Your task to perform on an android device: What's on the menu at Panera? Image 0: 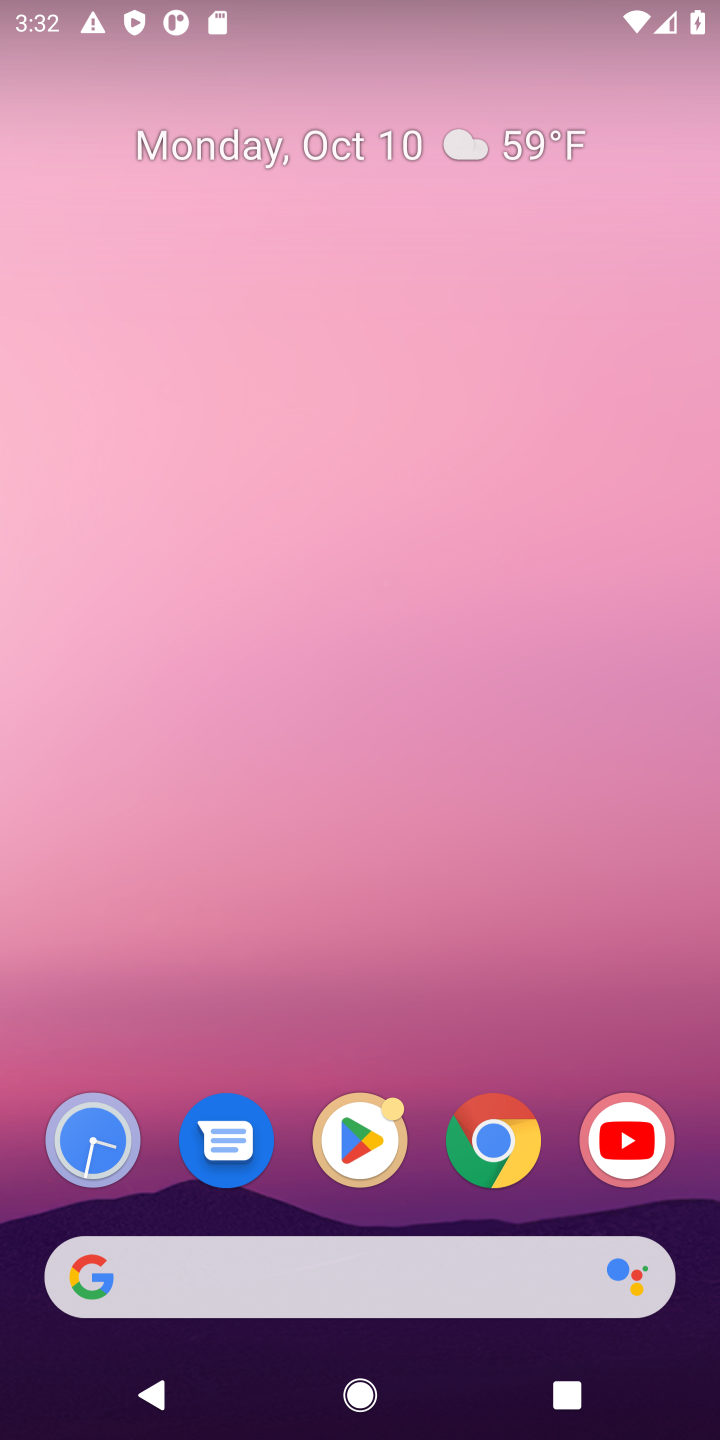
Step 0: drag from (391, 358) to (396, 214)
Your task to perform on an android device: What's on the menu at Panera? Image 1: 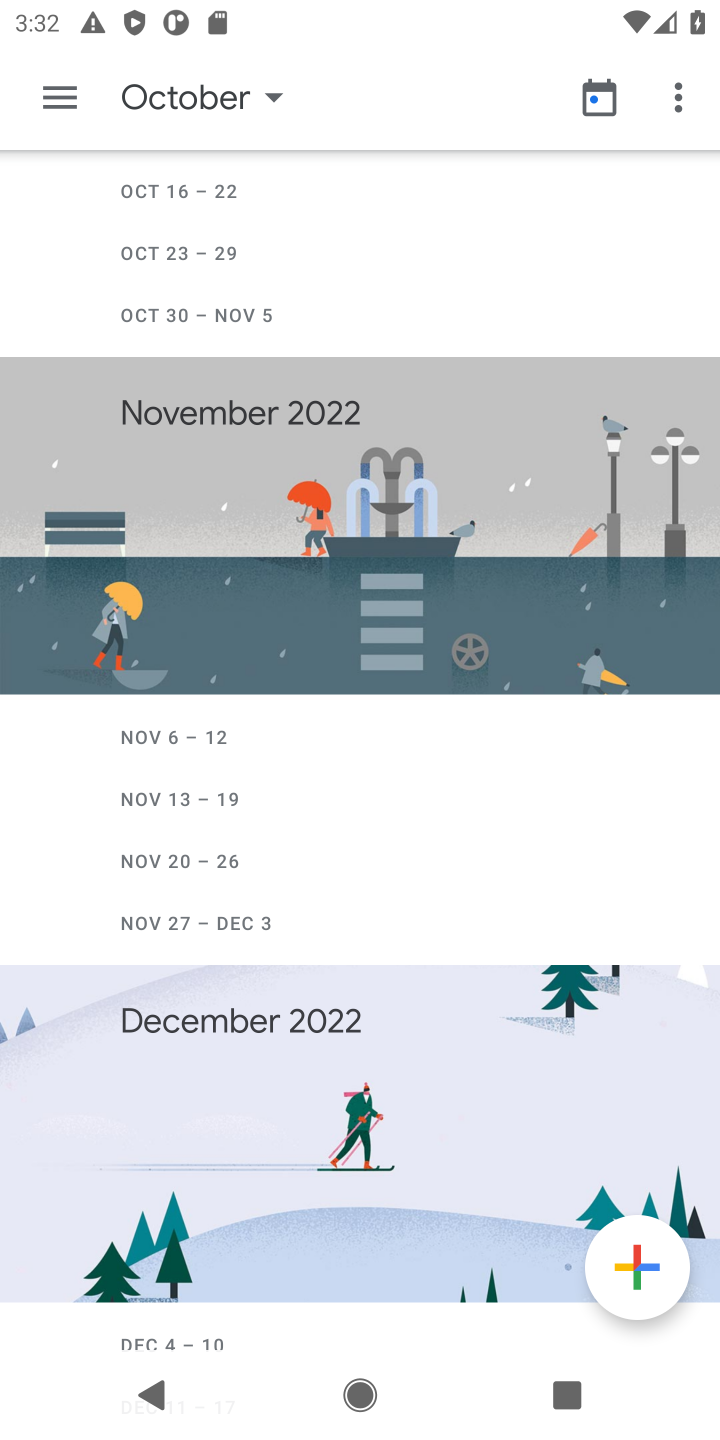
Step 1: press home button
Your task to perform on an android device: What's on the menu at Panera? Image 2: 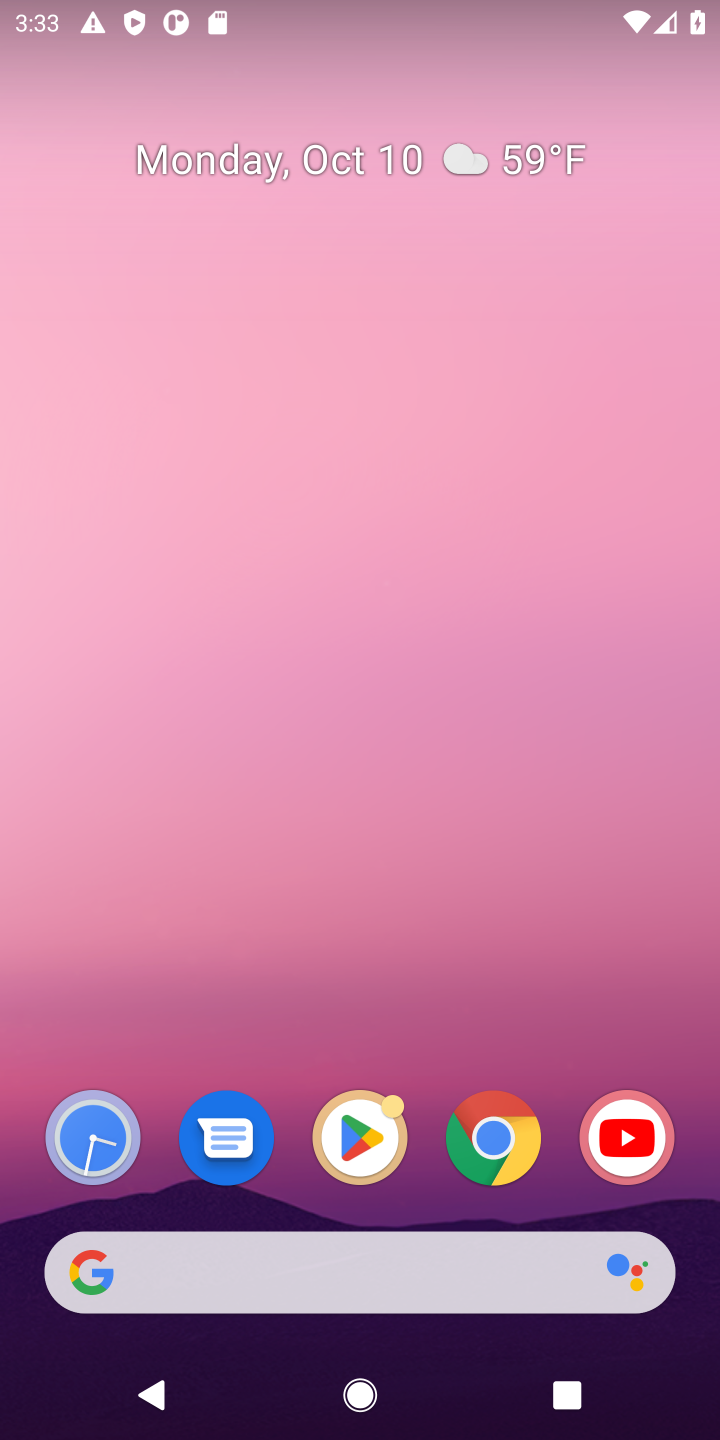
Step 2: drag from (412, 1297) to (280, 367)
Your task to perform on an android device: What's on the menu at Panera? Image 3: 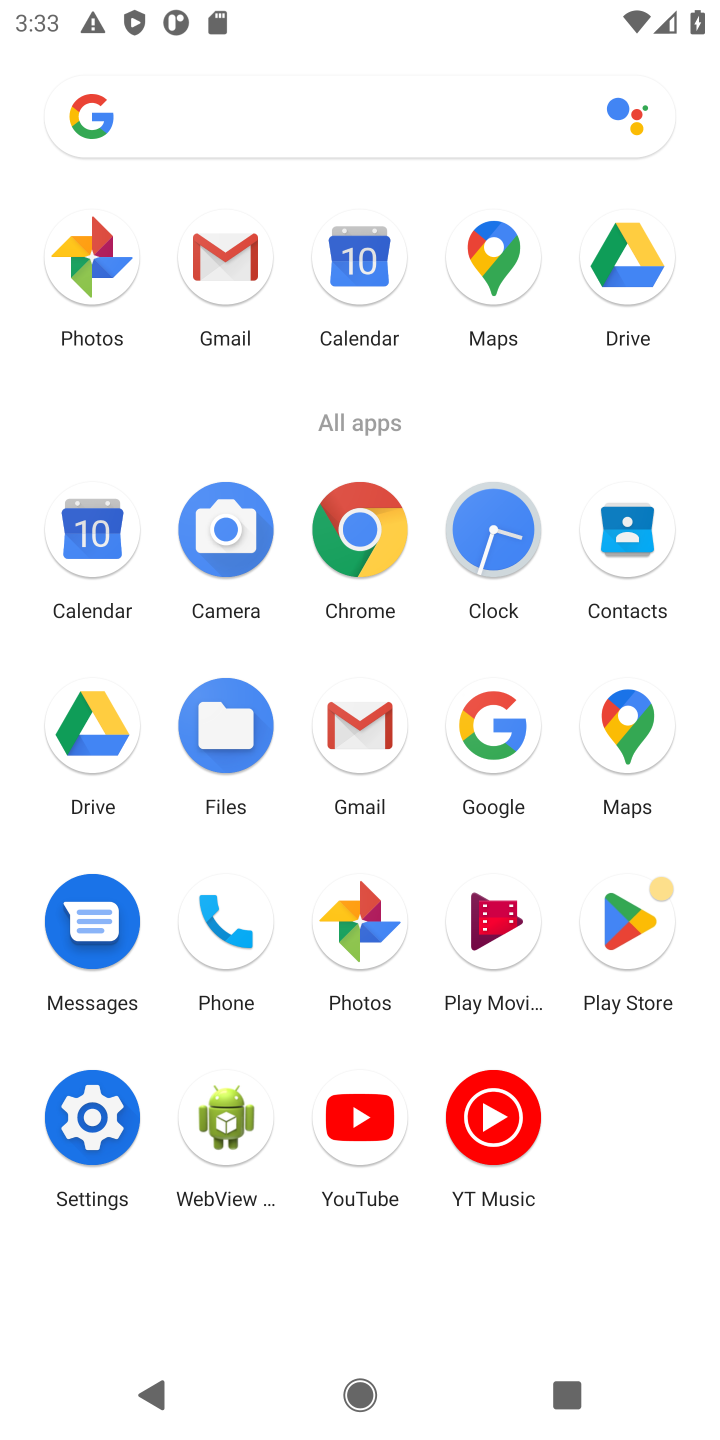
Step 3: click (360, 525)
Your task to perform on an android device: What's on the menu at Panera? Image 4: 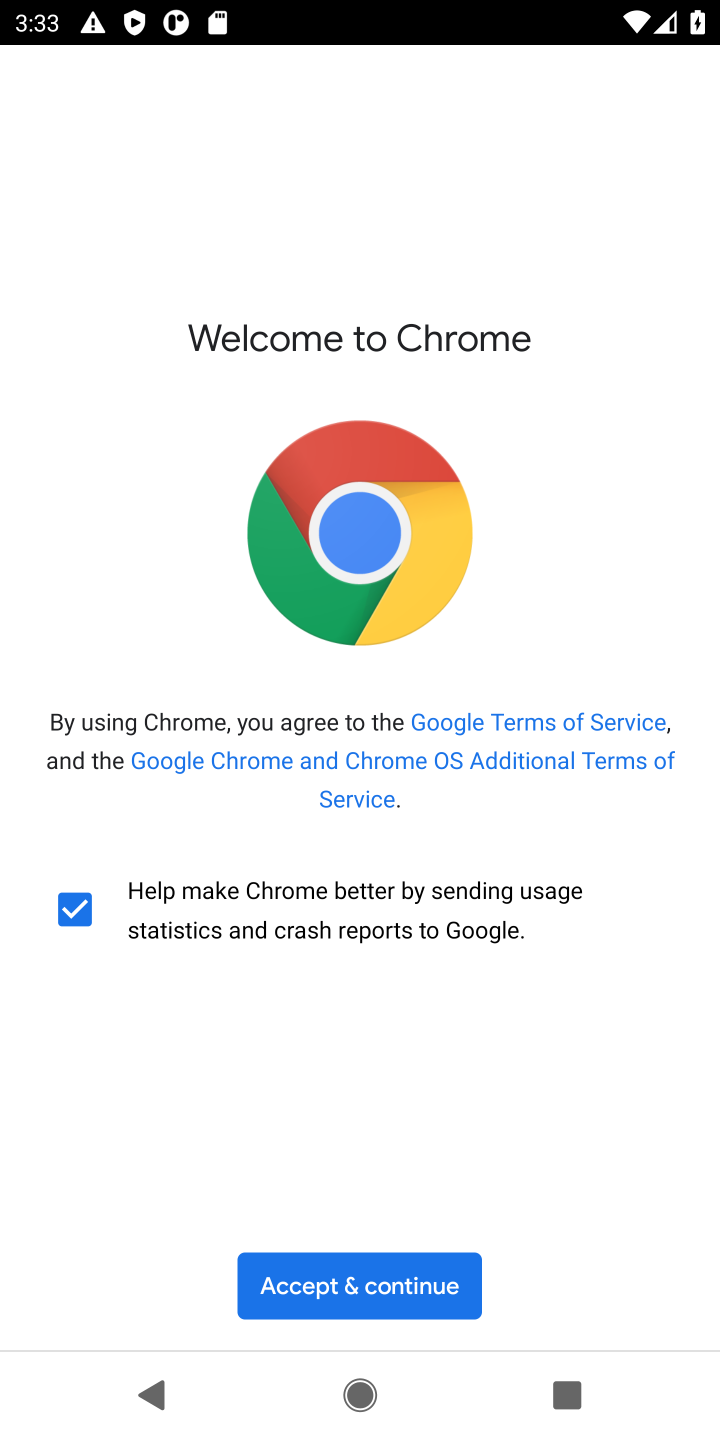
Step 4: click (323, 1273)
Your task to perform on an android device: What's on the menu at Panera? Image 5: 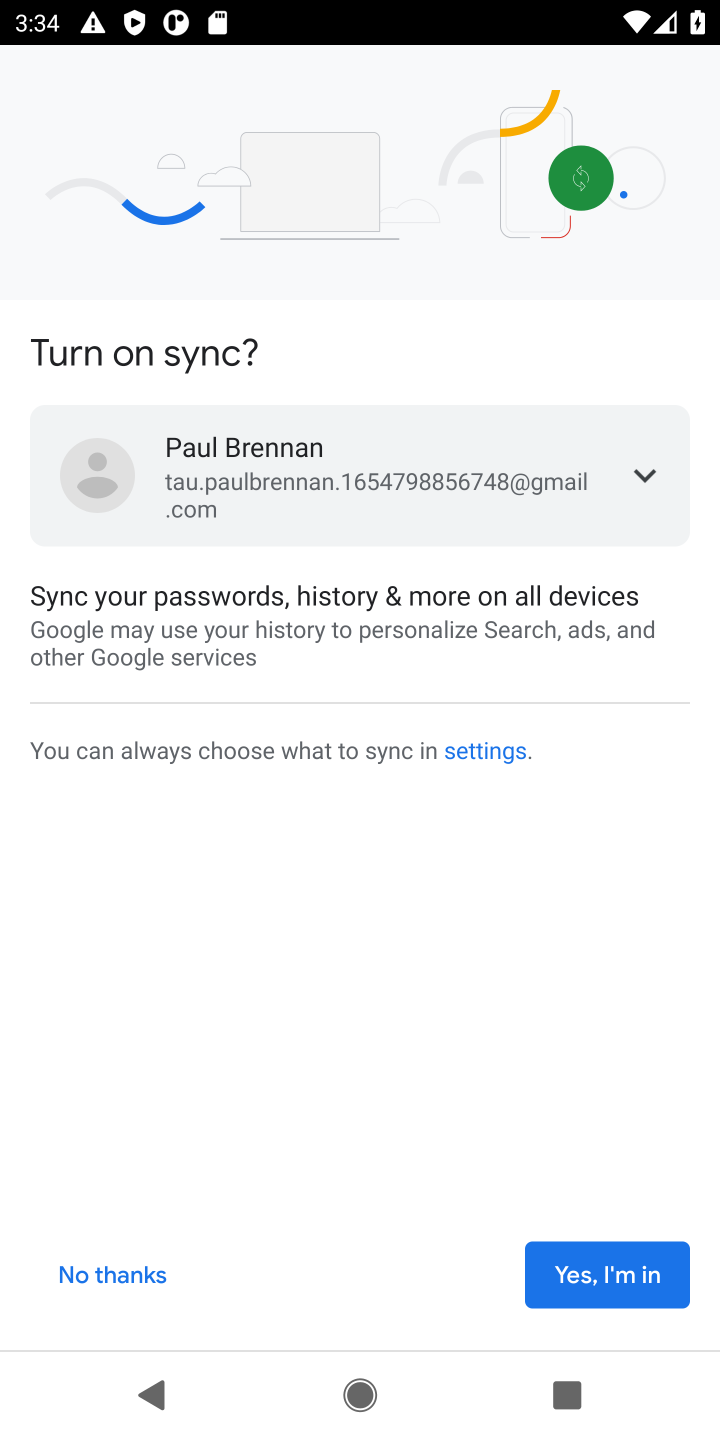
Step 5: click (618, 1272)
Your task to perform on an android device: What's on the menu at Panera? Image 6: 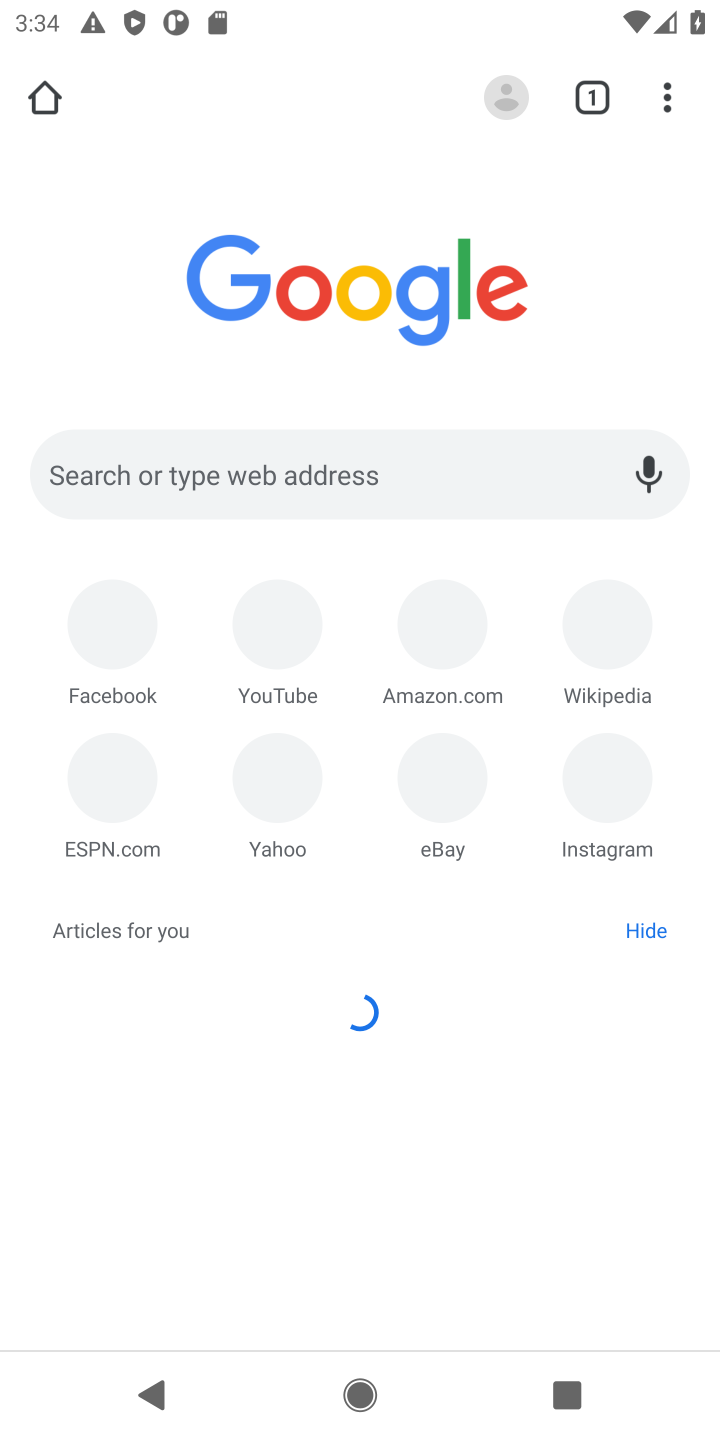
Step 6: click (367, 470)
Your task to perform on an android device: What's on the menu at Panera? Image 7: 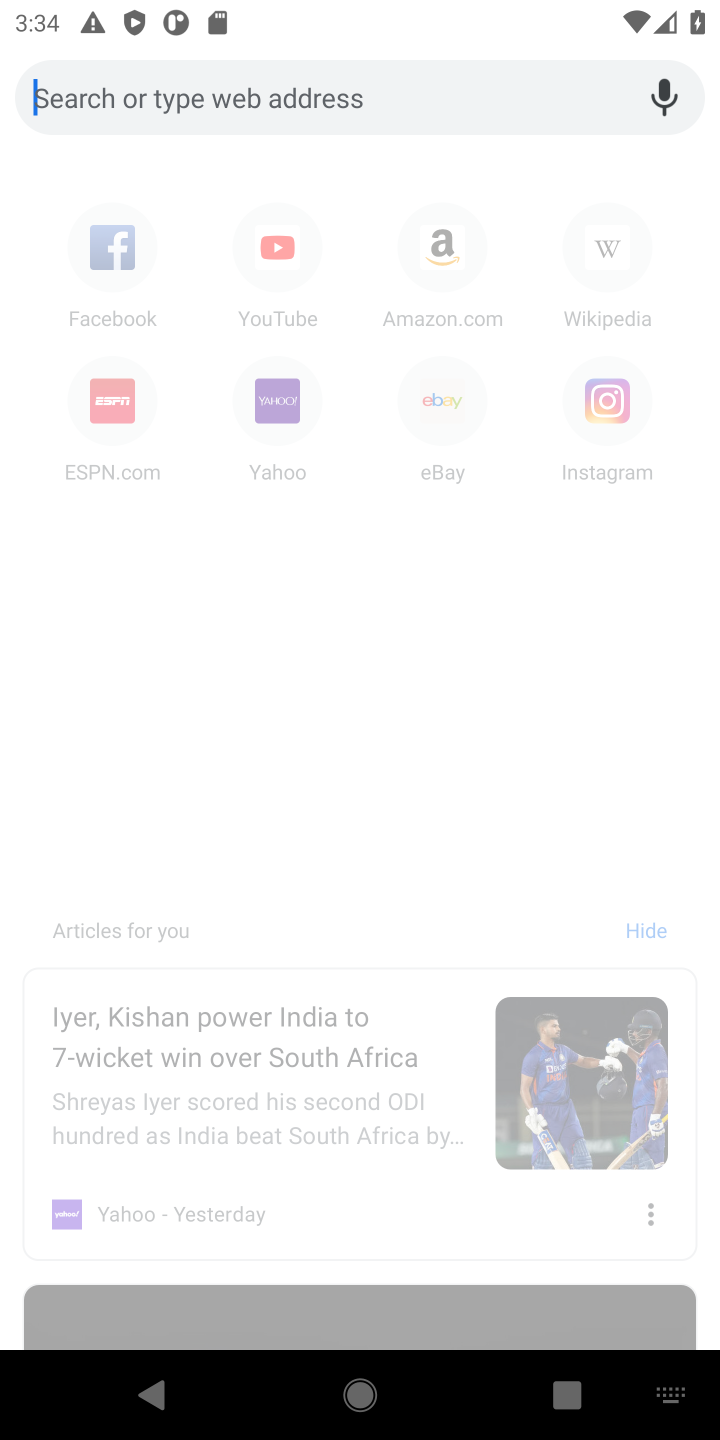
Step 7: type "What's on the menu at Panera?"
Your task to perform on an android device: What's on the menu at Panera? Image 8: 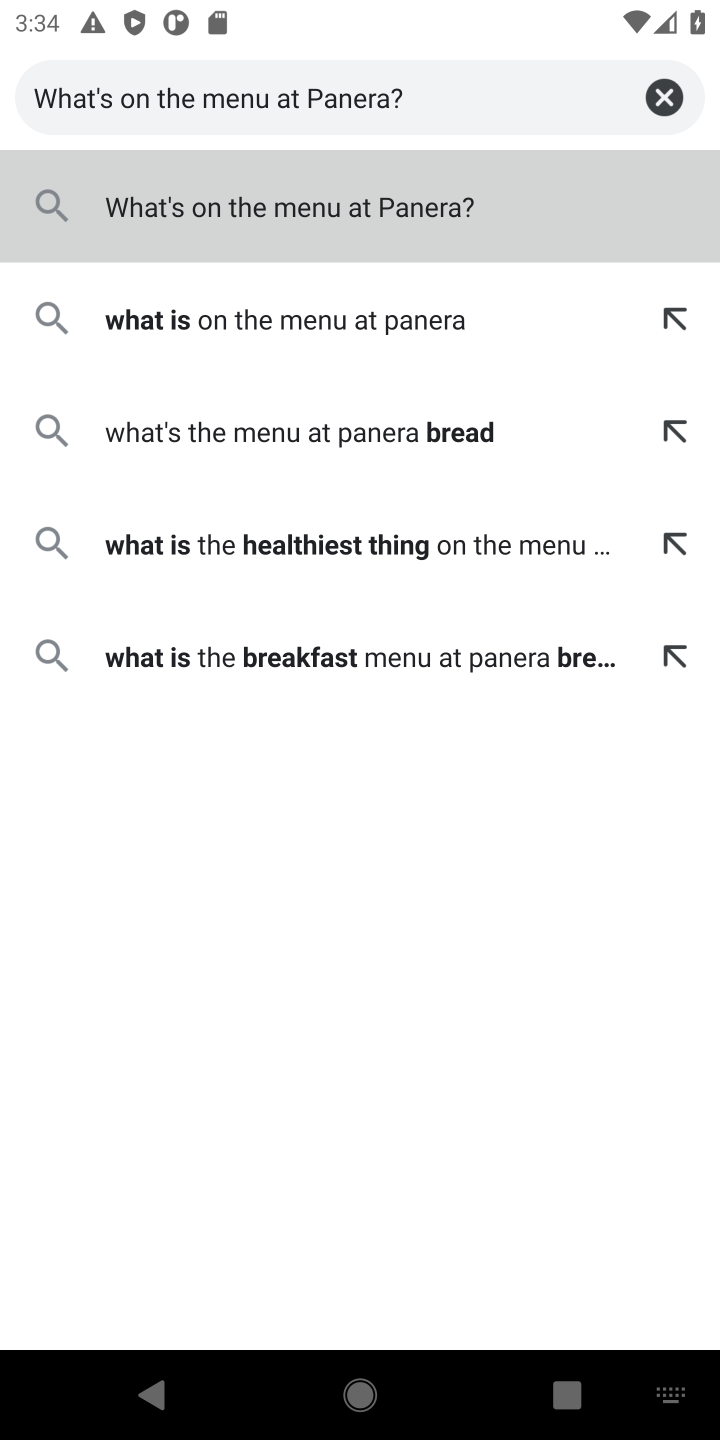
Step 8: press enter
Your task to perform on an android device: What's on the menu at Panera? Image 9: 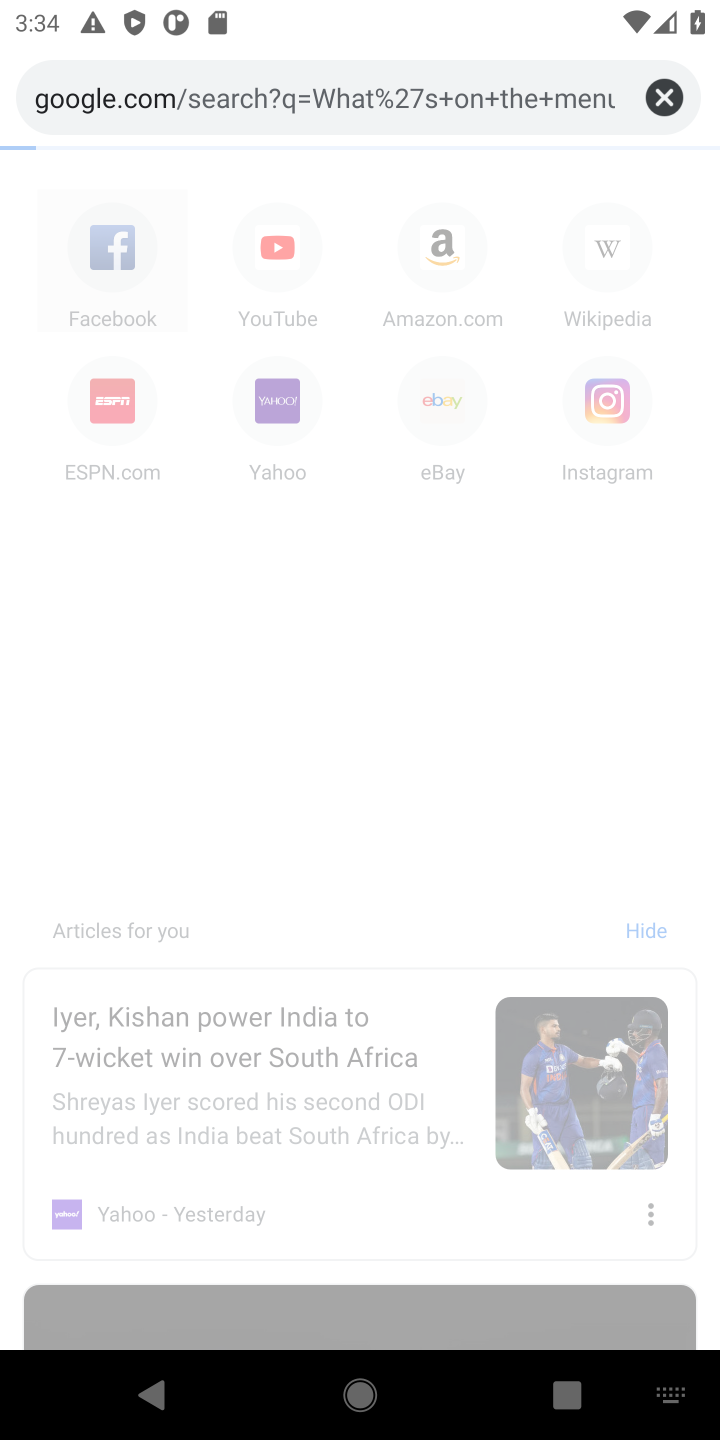
Step 9: press enter
Your task to perform on an android device: What's on the menu at Panera? Image 10: 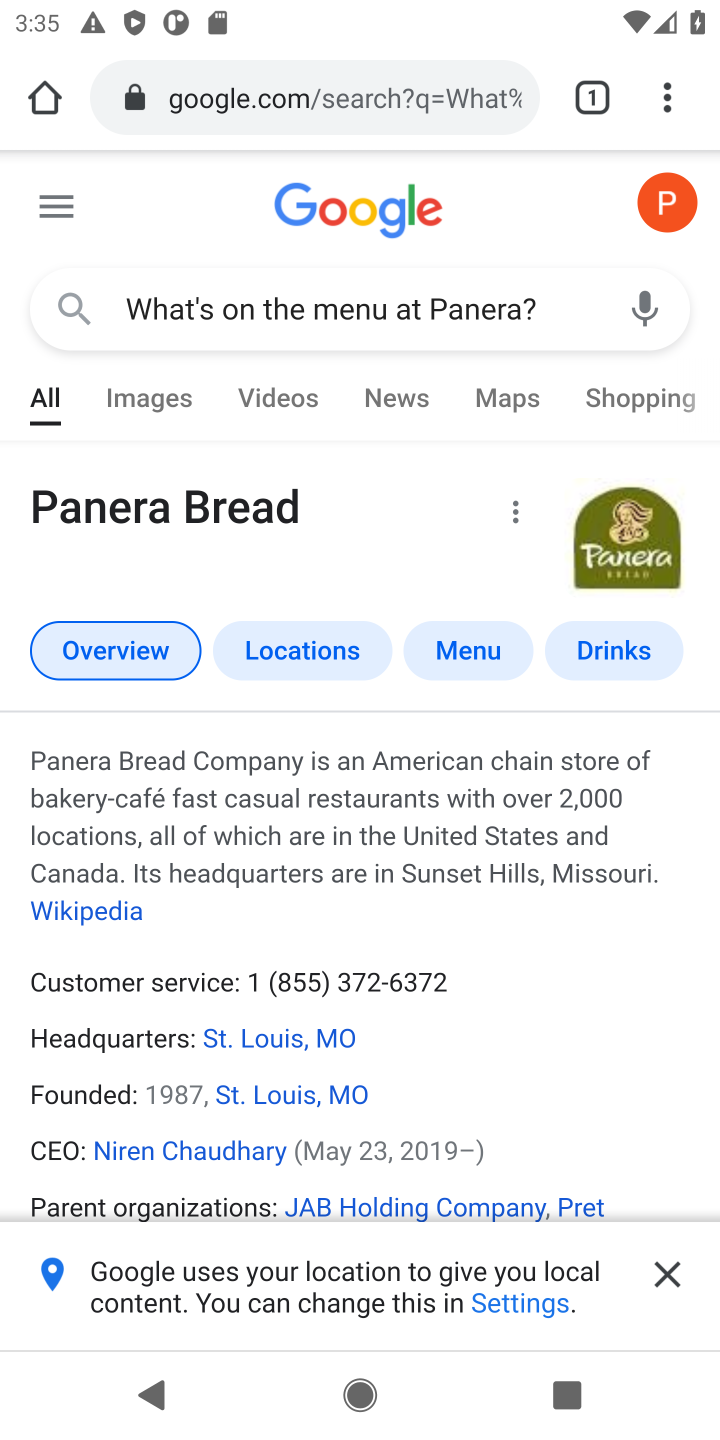
Step 10: task complete